Your task to perform on an android device: find snoozed emails in the gmail app Image 0: 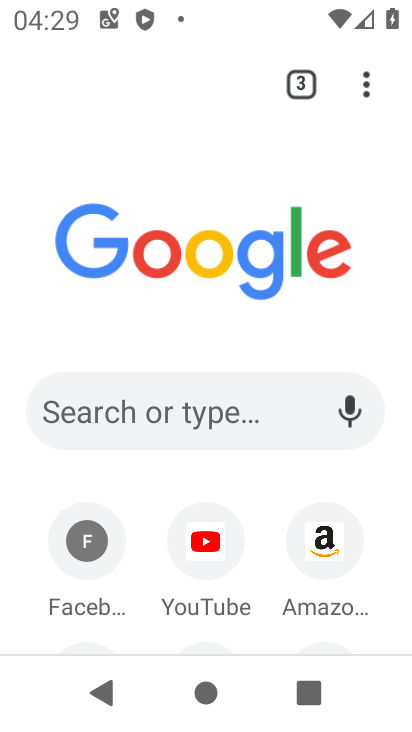
Step 0: press home button
Your task to perform on an android device: find snoozed emails in the gmail app Image 1: 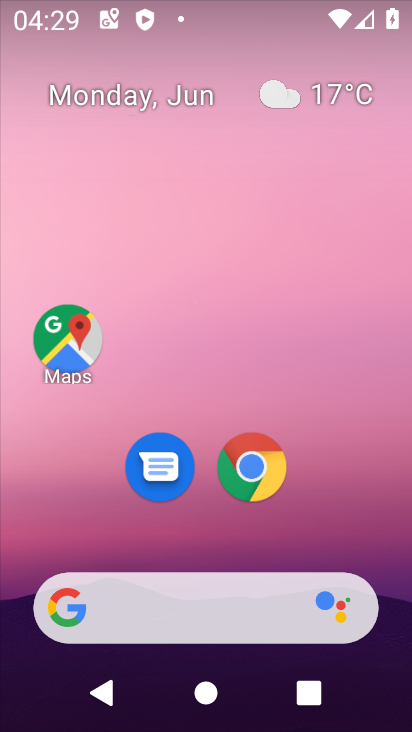
Step 1: drag from (213, 553) to (289, 77)
Your task to perform on an android device: find snoozed emails in the gmail app Image 2: 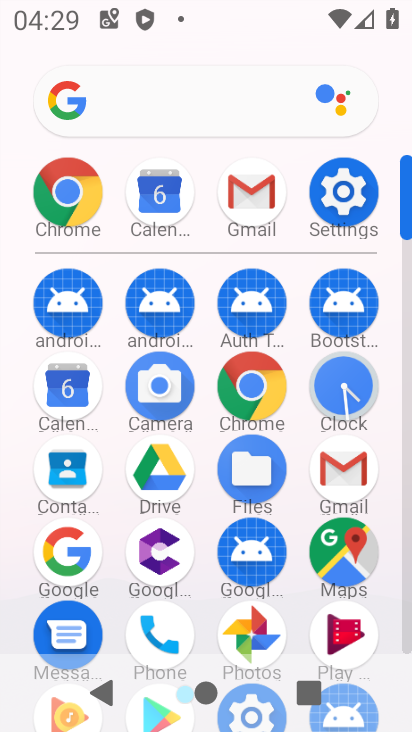
Step 2: click (350, 472)
Your task to perform on an android device: find snoozed emails in the gmail app Image 3: 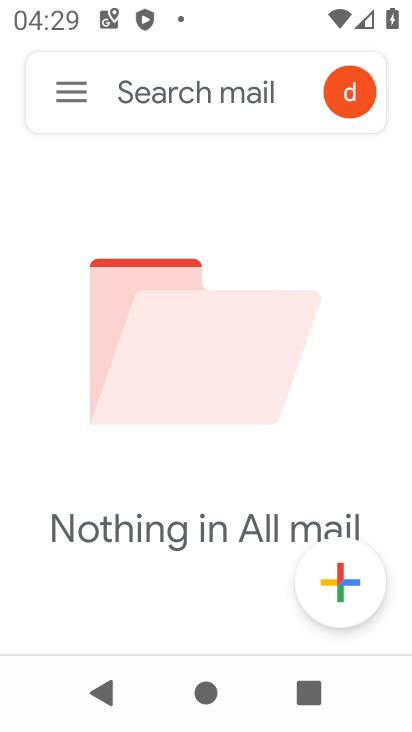
Step 3: click (52, 83)
Your task to perform on an android device: find snoozed emails in the gmail app Image 4: 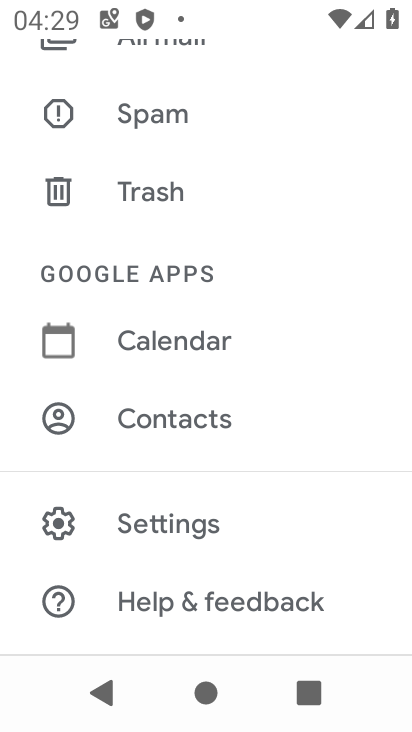
Step 4: drag from (163, 223) to (168, 666)
Your task to perform on an android device: find snoozed emails in the gmail app Image 5: 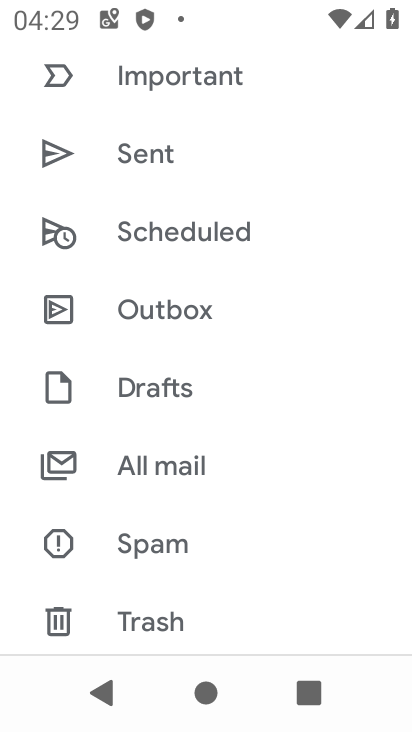
Step 5: drag from (162, 201) to (178, 550)
Your task to perform on an android device: find snoozed emails in the gmail app Image 6: 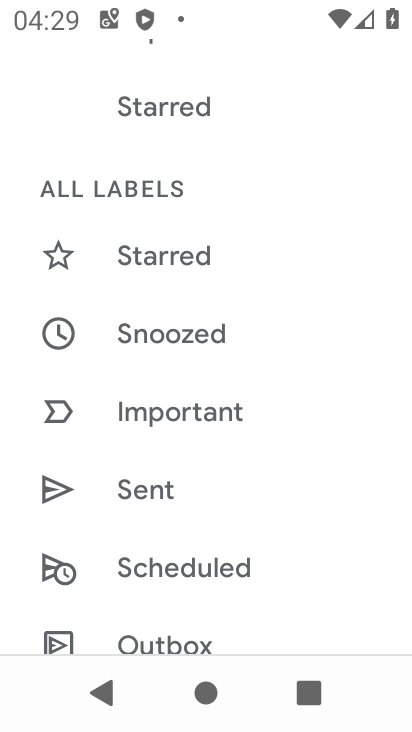
Step 6: click (176, 342)
Your task to perform on an android device: find snoozed emails in the gmail app Image 7: 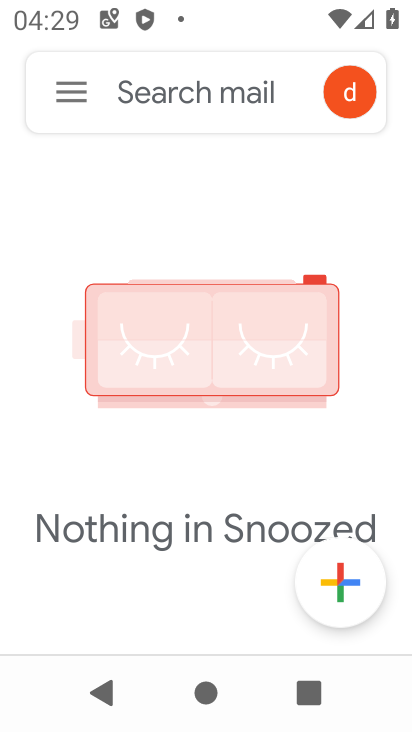
Step 7: task complete